Your task to perform on an android device: Go to Amazon Image 0: 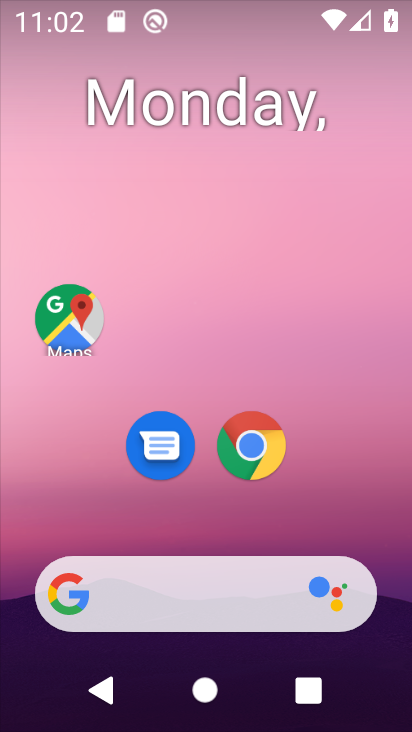
Step 0: click (248, 435)
Your task to perform on an android device: Go to Amazon Image 1: 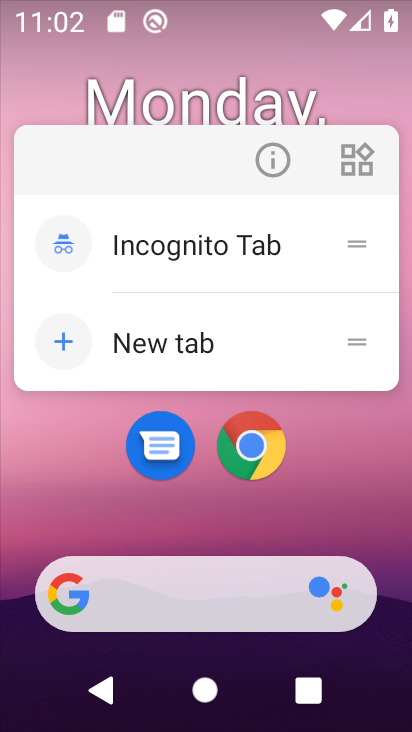
Step 1: click (245, 458)
Your task to perform on an android device: Go to Amazon Image 2: 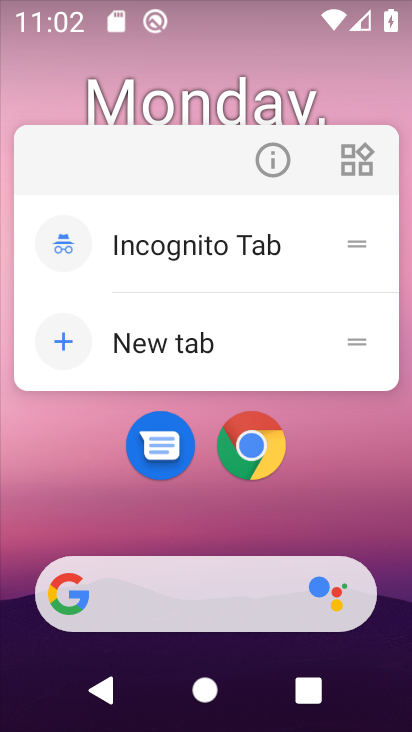
Step 2: click (244, 451)
Your task to perform on an android device: Go to Amazon Image 3: 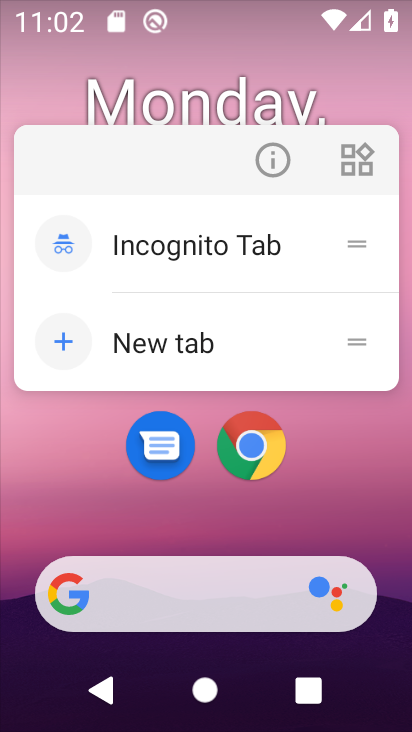
Step 3: click (246, 437)
Your task to perform on an android device: Go to Amazon Image 4: 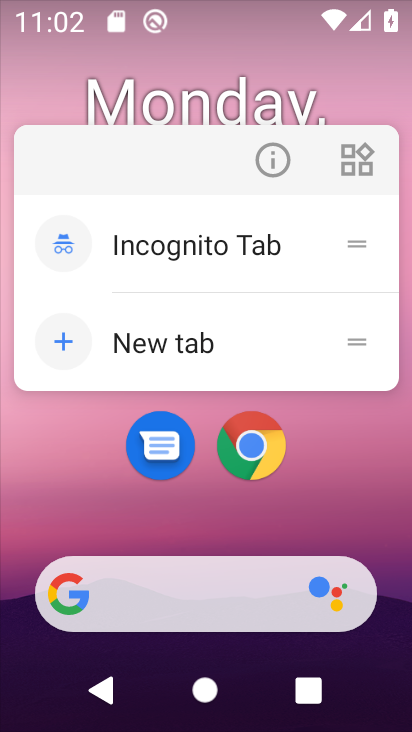
Step 4: click (250, 449)
Your task to perform on an android device: Go to Amazon Image 5: 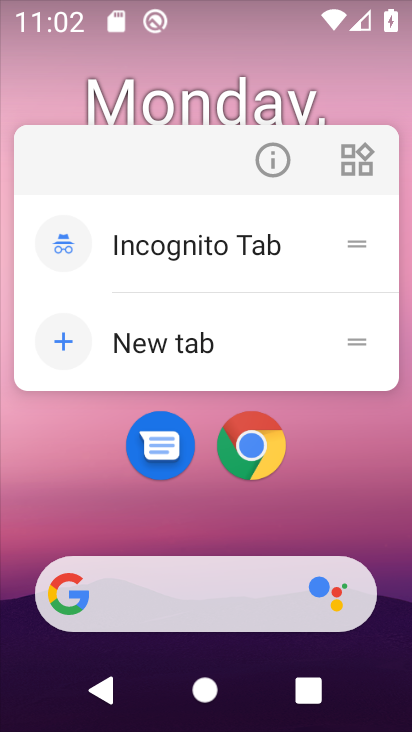
Step 5: click (167, 356)
Your task to perform on an android device: Go to Amazon Image 6: 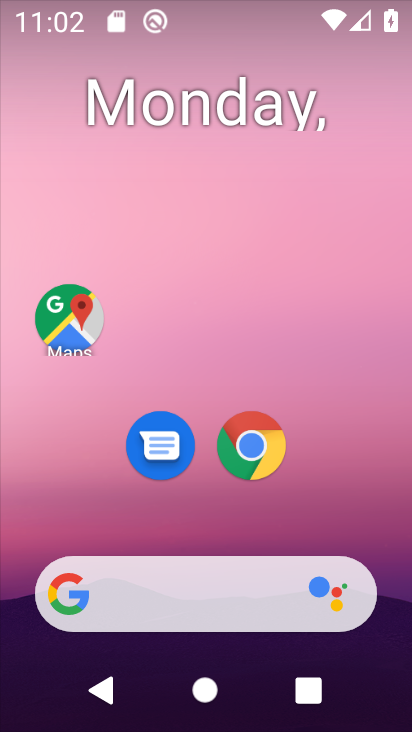
Step 6: click (240, 419)
Your task to perform on an android device: Go to Amazon Image 7: 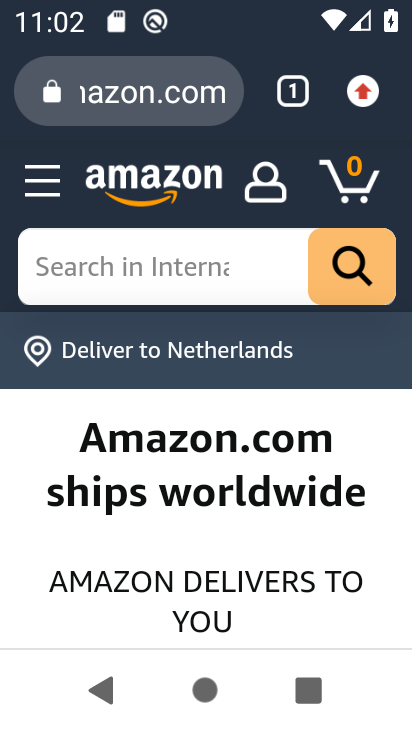
Step 7: task complete